Your task to perform on an android device: Open notification settings Image 0: 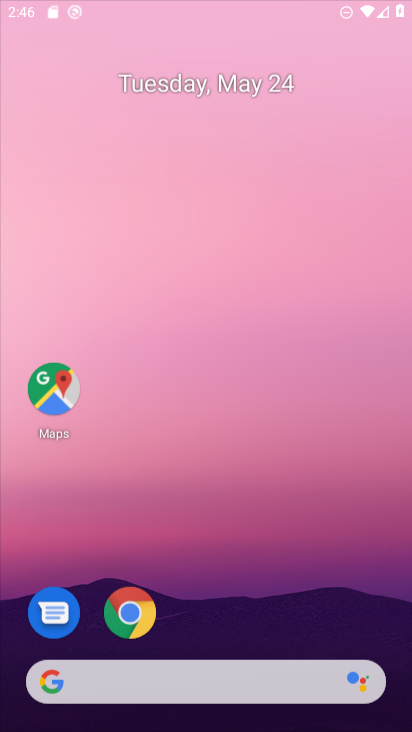
Step 0: press home button
Your task to perform on an android device: Open notification settings Image 1: 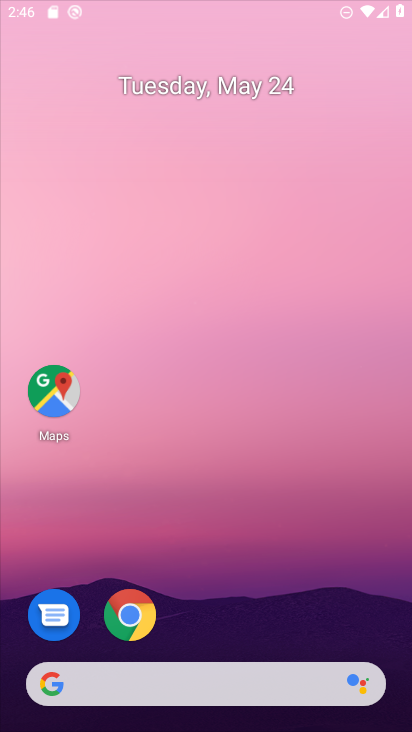
Step 1: drag from (249, 607) to (360, 192)
Your task to perform on an android device: Open notification settings Image 2: 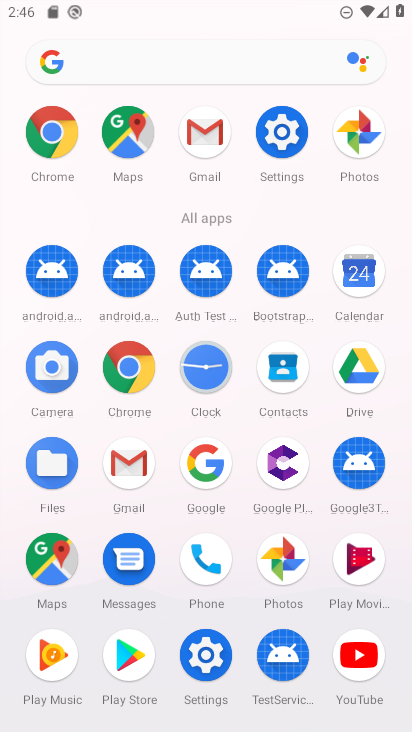
Step 2: click (294, 166)
Your task to perform on an android device: Open notification settings Image 3: 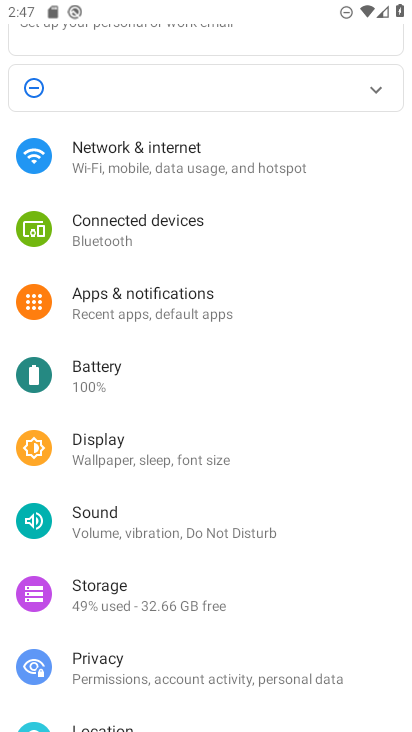
Step 3: click (200, 308)
Your task to perform on an android device: Open notification settings Image 4: 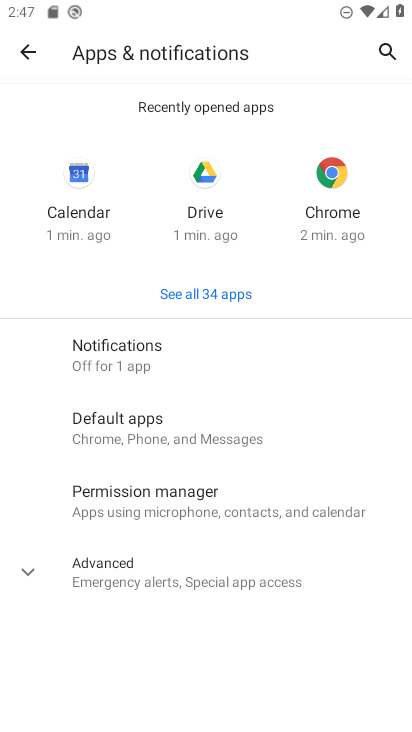
Step 4: click (164, 356)
Your task to perform on an android device: Open notification settings Image 5: 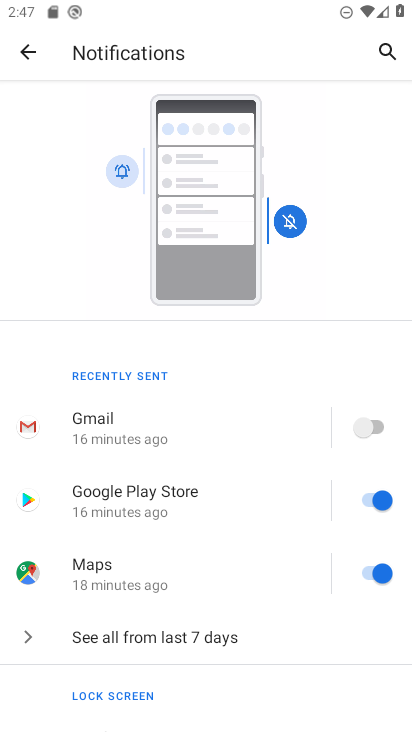
Step 5: drag from (158, 548) to (202, 383)
Your task to perform on an android device: Open notification settings Image 6: 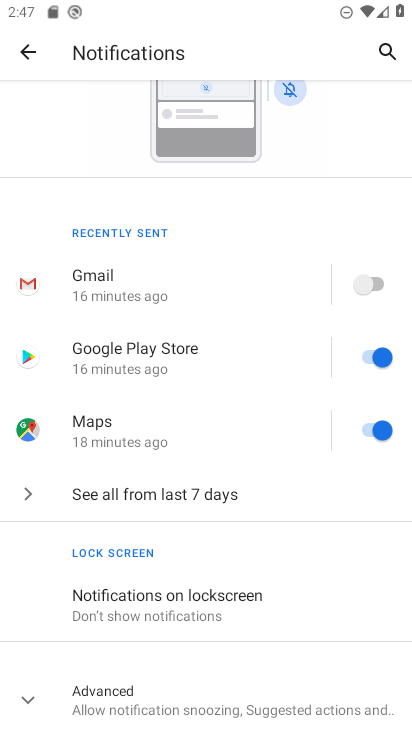
Step 6: click (215, 592)
Your task to perform on an android device: Open notification settings Image 7: 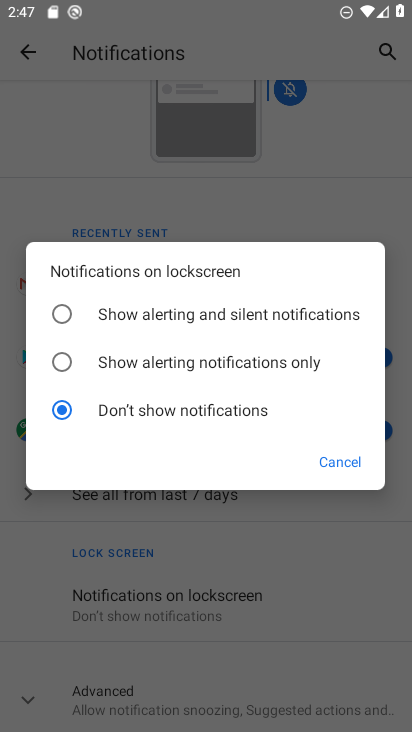
Step 7: task complete